Your task to perform on an android device: turn off picture-in-picture Image 0: 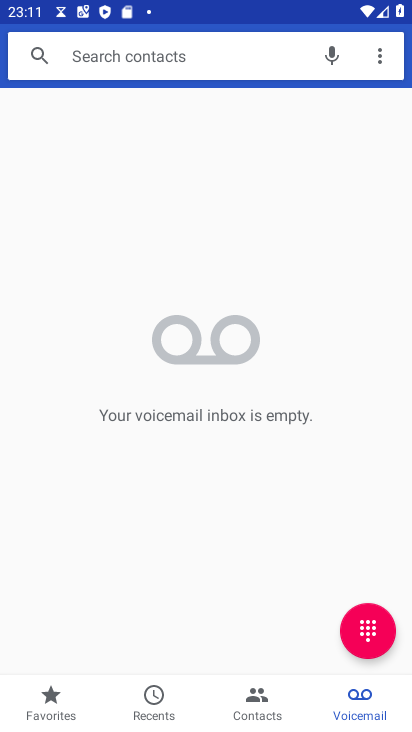
Step 0: press home button
Your task to perform on an android device: turn off picture-in-picture Image 1: 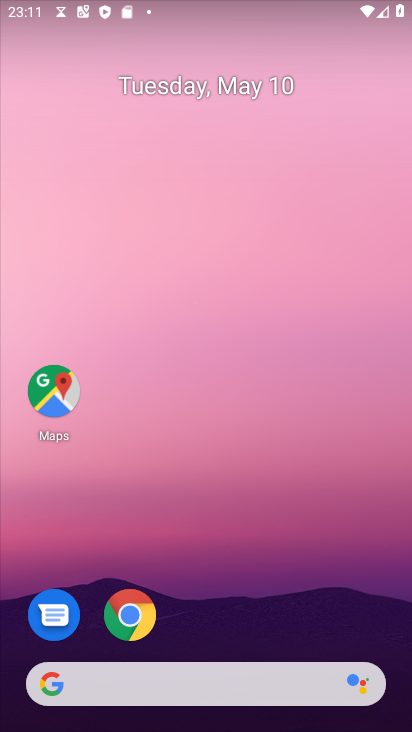
Step 1: click (125, 610)
Your task to perform on an android device: turn off picture-in-picture Image 2: 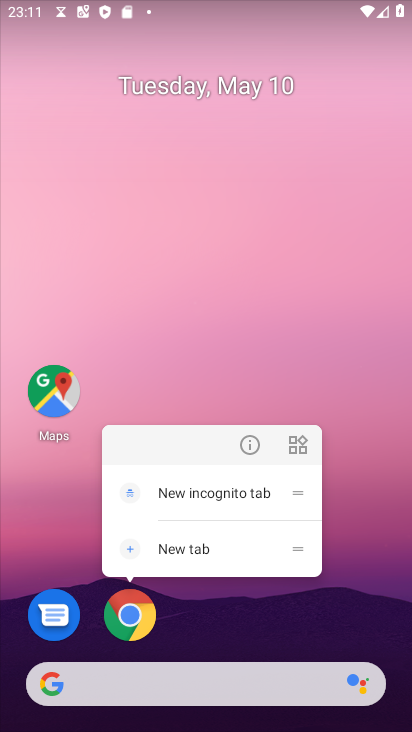
Step 2: click (256, 441)
Your task to perform on an android device: turn off picture-in-picture Image 3: 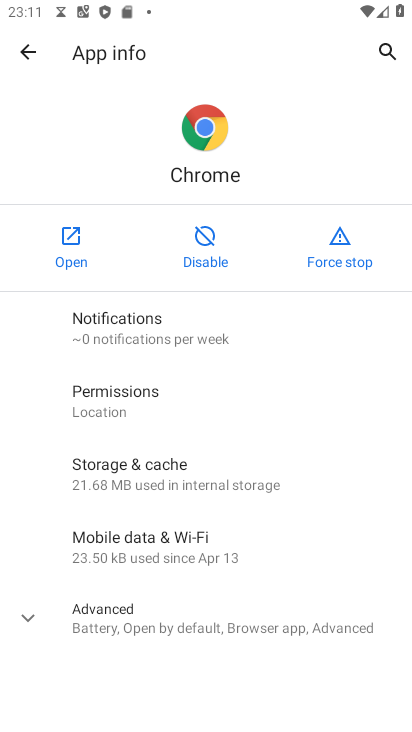
Step 3: click (182, 630)
Your task to perform on an android device: turn off picture-in-picture Image 4: 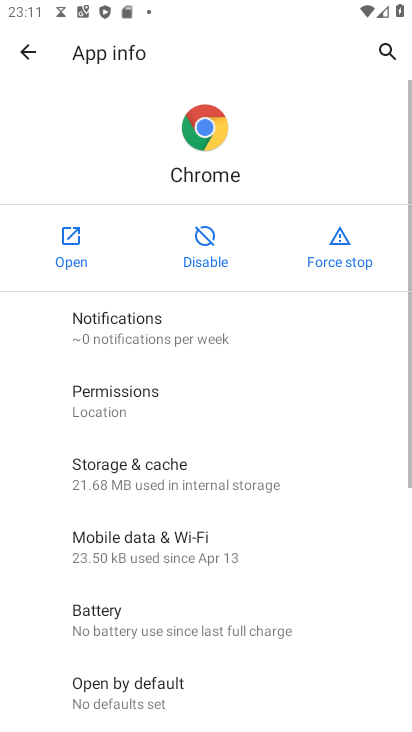
Step 4: drag from (182, 630) to (157, 416)
Your task to perform on an android device: turn off picture-in-picture Image 5: 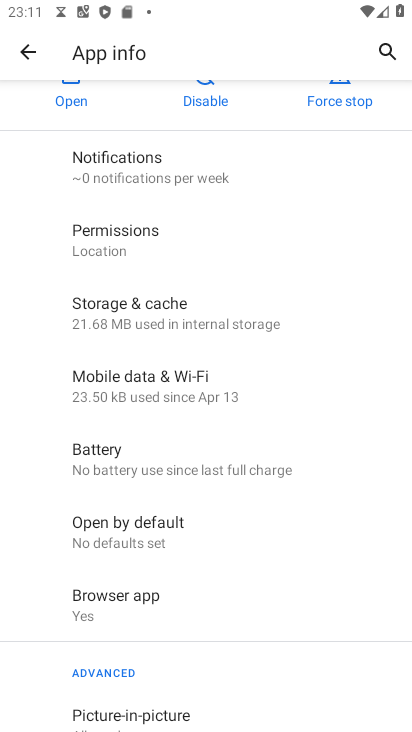
Step 5: drag from (196, 579) to (191, 347)
Your task to perform on an android device: turn off picture-in-picture Image 6: 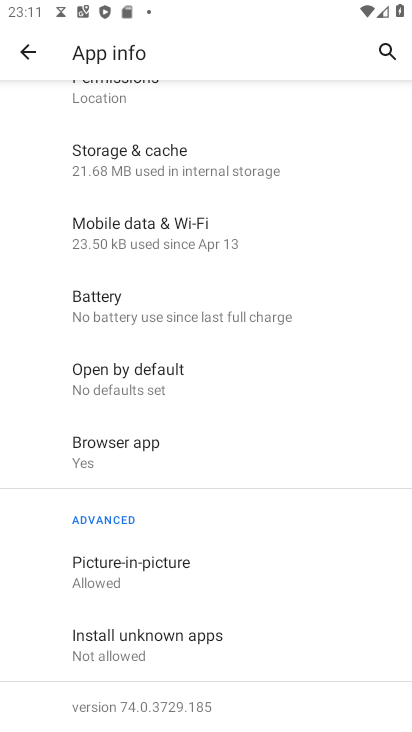
Step 6: click (118, 577)
Your task to perform on an android device: turn off picture-in-picture Image 7: 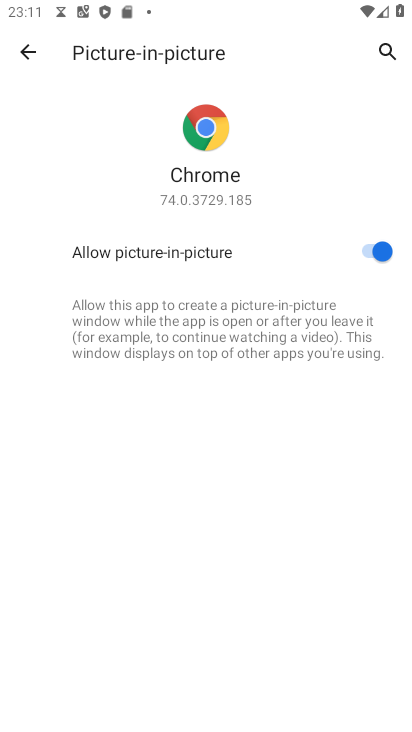
Step 7: click (381, 261)
Your task to perform on an android device: turn off picture-in-picture Image 8: 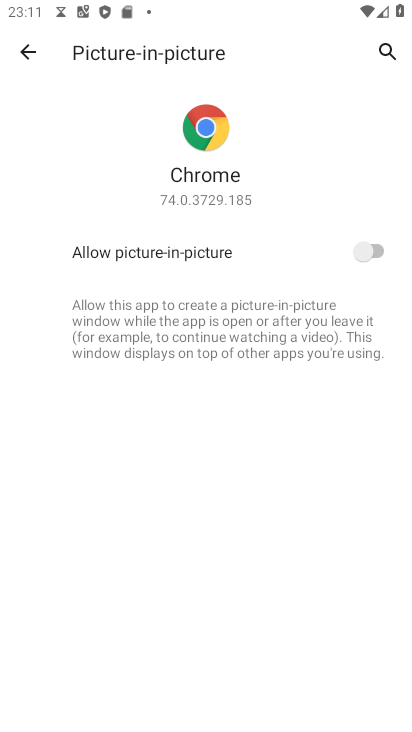
Step 8: task complete